Your task to perform on an android device: delete a single message in the gmail app Image 0: 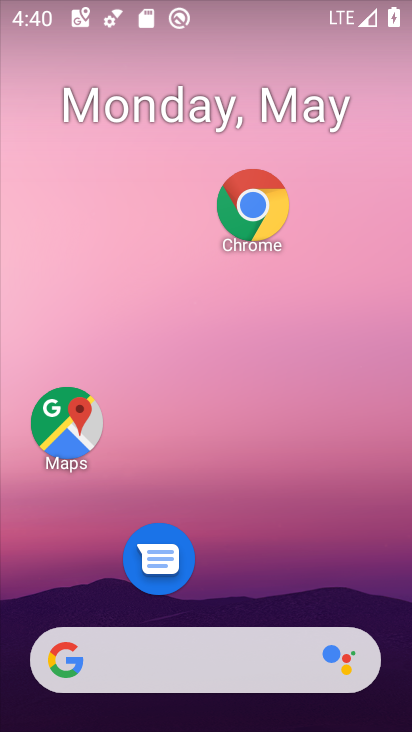
Step 0: drag from (269, 585) to (255, 8)
Your task to perform on an android device: delete a single message in the gmail app Image 1: 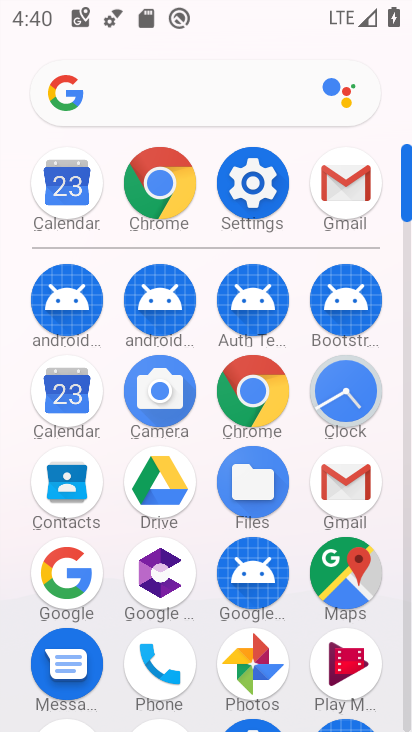
Step 1: click (357, 194)
Your task to perform on an android device: delete a single message in the gmail app Image 2: 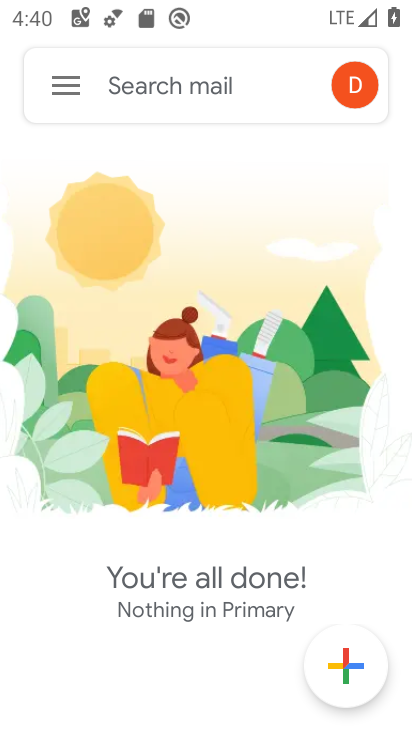
Step 2: click (63, 89)
Your task to perform on an android device: delete a single message in the gmail app Image 3: 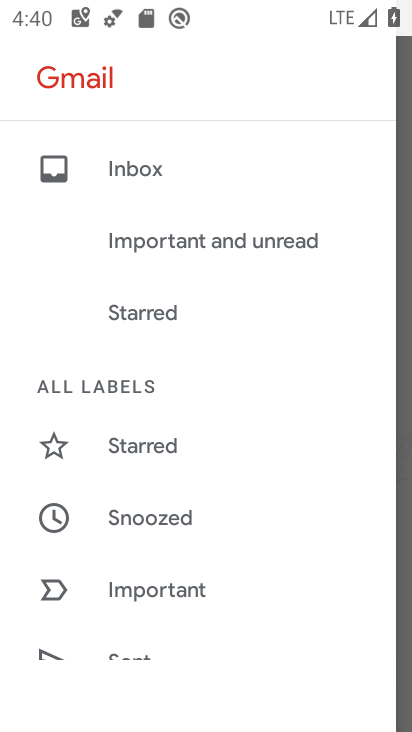
Step 3: drag from (199, 592) to (206, 175)
Your task to perform on an android device: delete a single message in the gmail app Image 4: 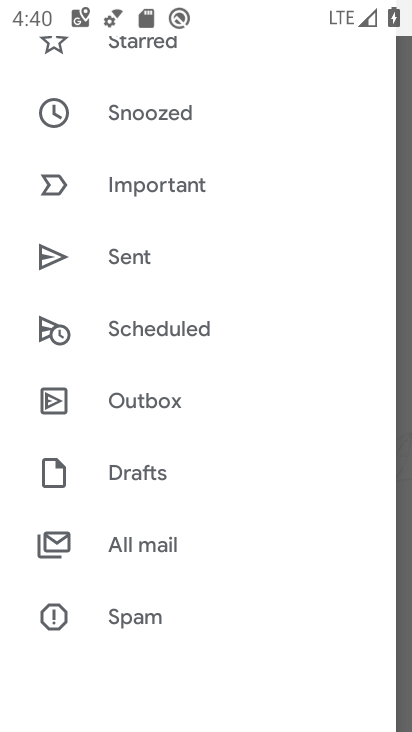
Step 4: click (158, 551)
Your task to perform on an android device: delete a single message in the gmail app Image 5: 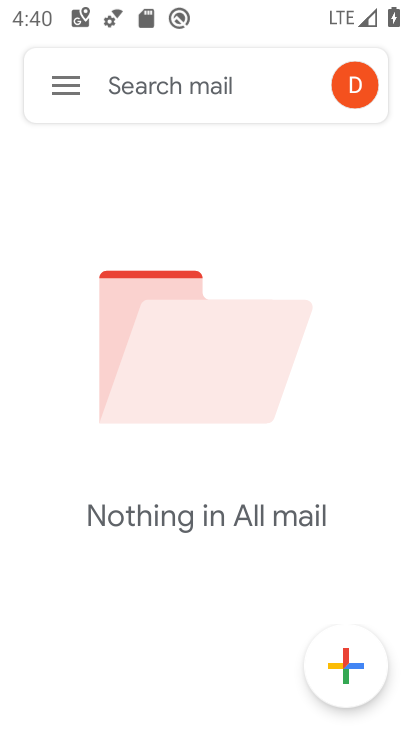
Step 5: task complete